Your task to perform on an android device: Open settings on Google Maps Image 0: 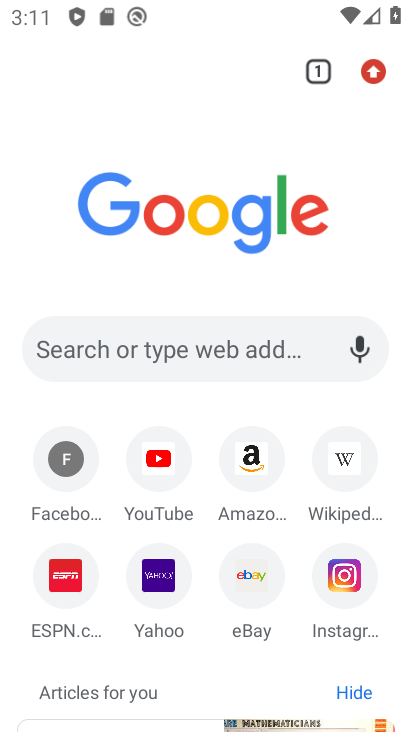
Step 0: press home button
Your task to perform on an android device: Open settings on Google Maps Image 1: 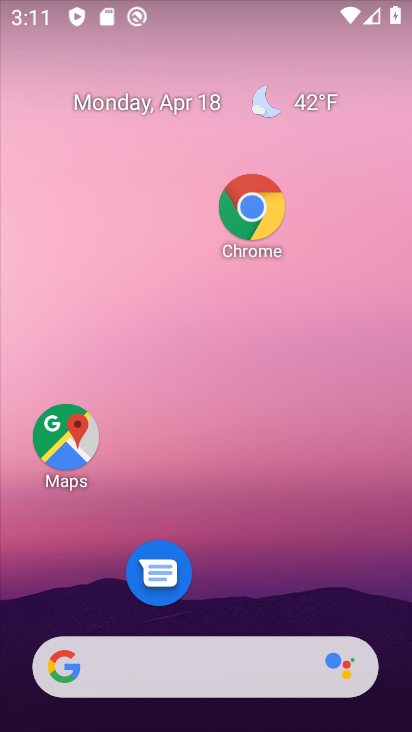
Step 1: drag from (224, 623) to (163, 139)
Your task to perform on an android device: Open settings on Google Maps Image 2: 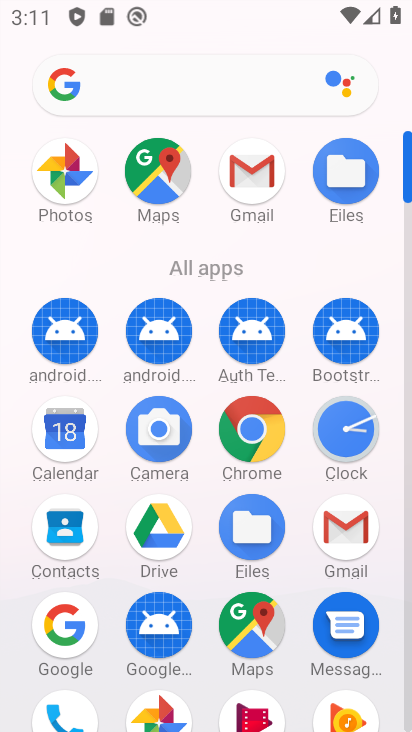
Step 2: click (259, 628)
Your task to perform on an android device: Open settings on Google Maps Image 3: 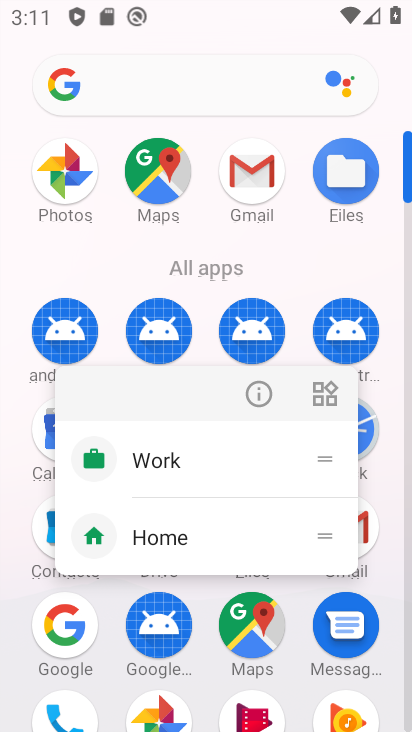
Step 3: click (253, 394)
Your task to perform on an android device: Open settings on Google Maps Image 4: 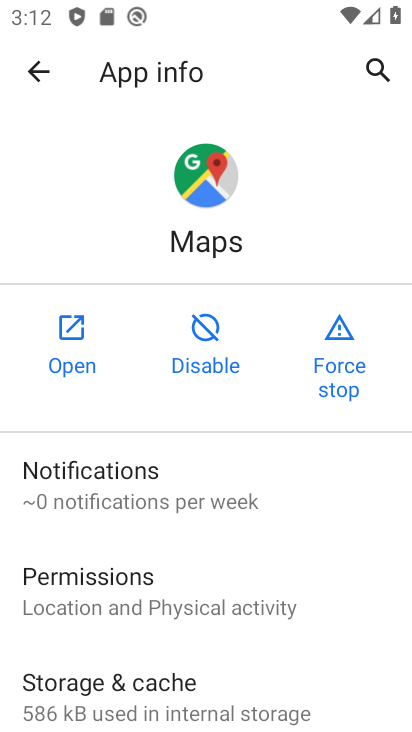
Step 4: click (73, 343)
Your task to perform on an android device: Open settings on Google Maps Image 5: 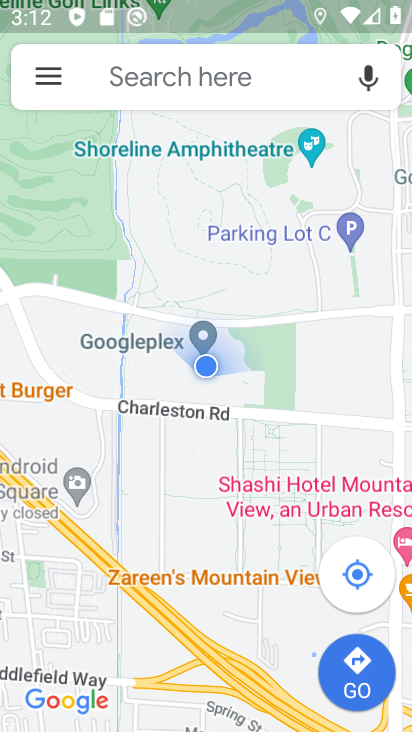
Step 5: task complete